Your task to perform on an android device: turn notification dots on Image 0: 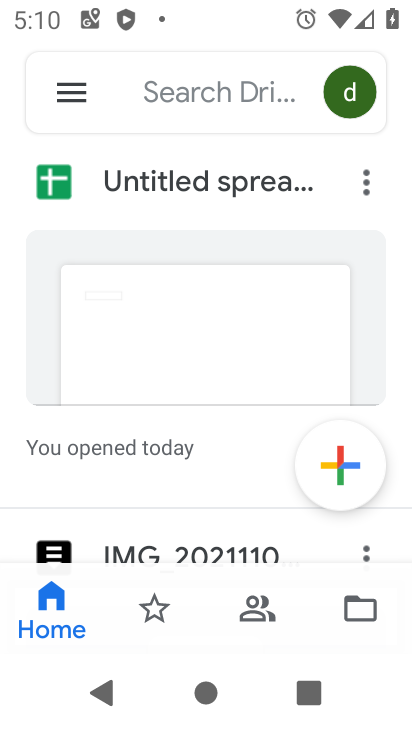
Step 0: press home button
Your task to perform on an android device: turn notification dots on Image 1: 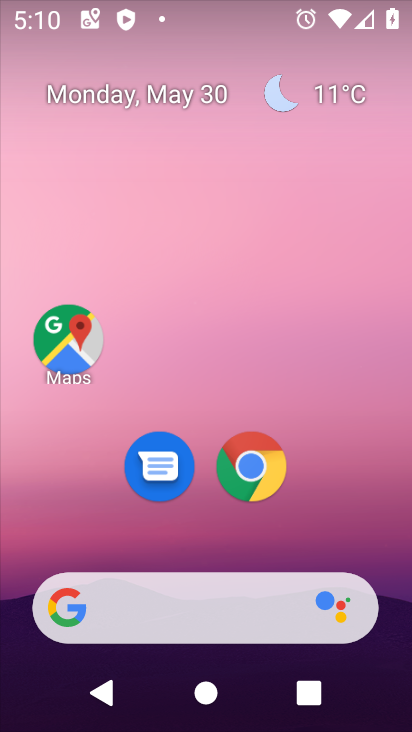
Step 1: drag from (336, 475) to (253, 87)
Your task to perform on an android device: turn notification dots on Image 2: 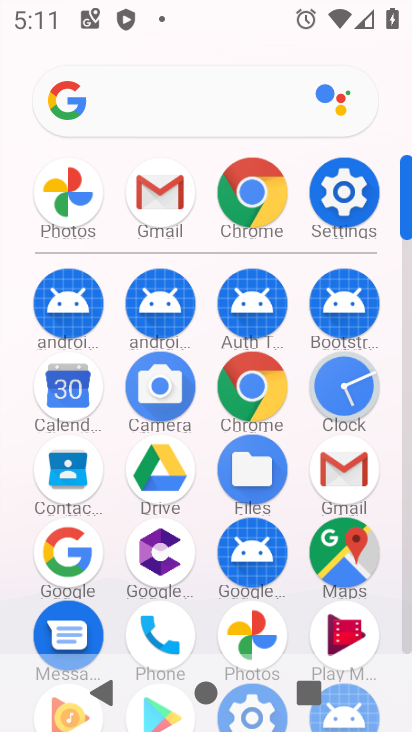
Step 2: click (345, 185)
Your task to perform on an android device: turn notification dots on Image 3: 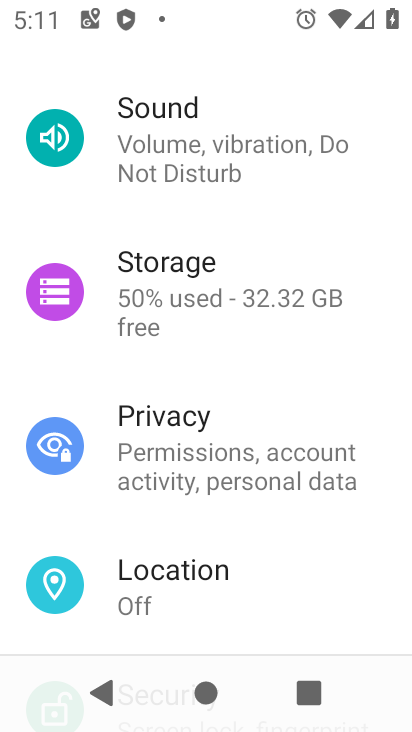
Step 3: drag from (265, 166) to (262, 644)
Your task to perform on an android device: turn notification dots on Image 4: 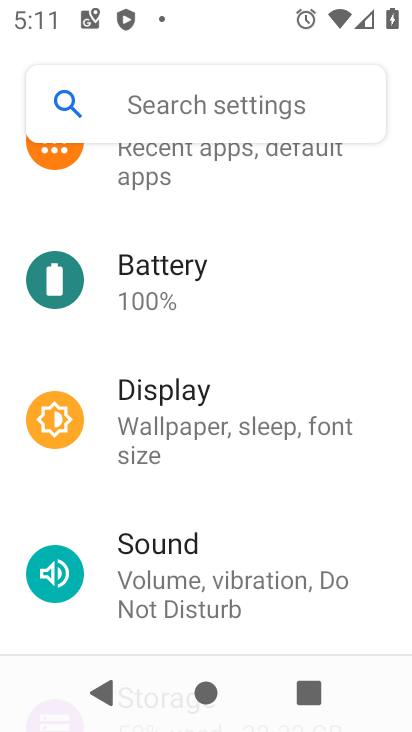
Step 4: drag from (230, 252) to (253, 670)
Your task to perform on an android device: turn notification dots on Image 5: 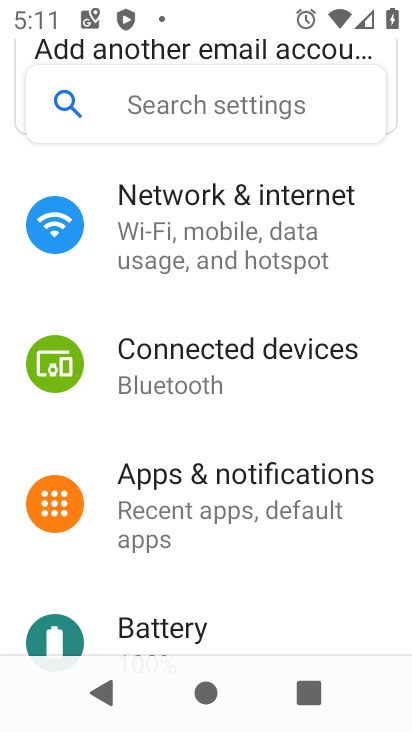
Step 5: drag from (220, 196) to (256, 576)
Your task to perform on an android device: turn notification dots on Image 6: 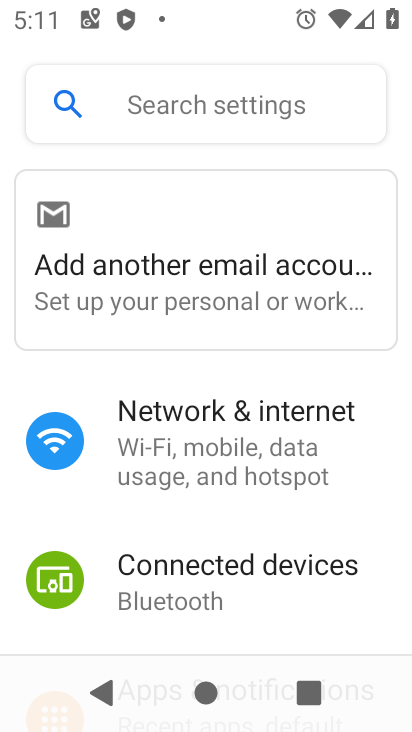
Step 6: drag from (232, 515) to (274, 73)
Your task to perform on an android device: turn notification dots on Image 7: 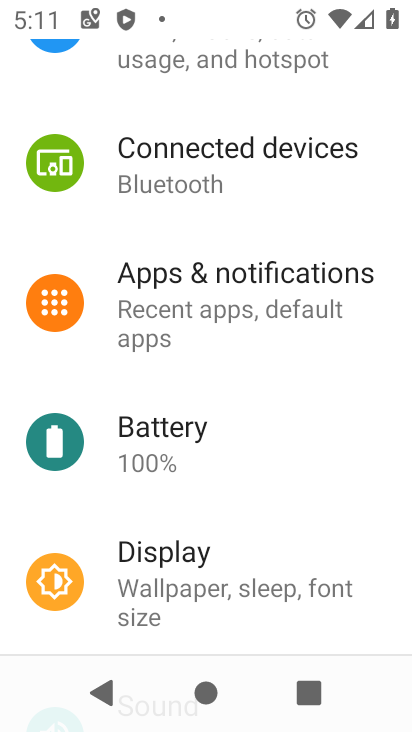
Step 7: click (227, 308)
Your task to perform on an android device: turn notification dots on Image 8: 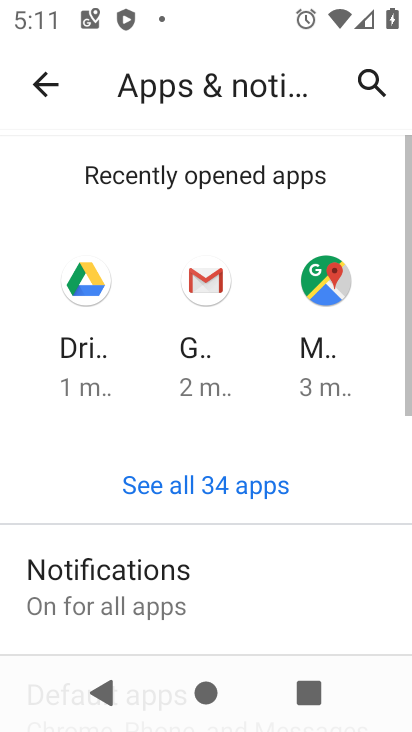
Step 8: drag from (242, 531) to (223, 125)
Your task to perform on an android device: turn notification dots on Image 9: 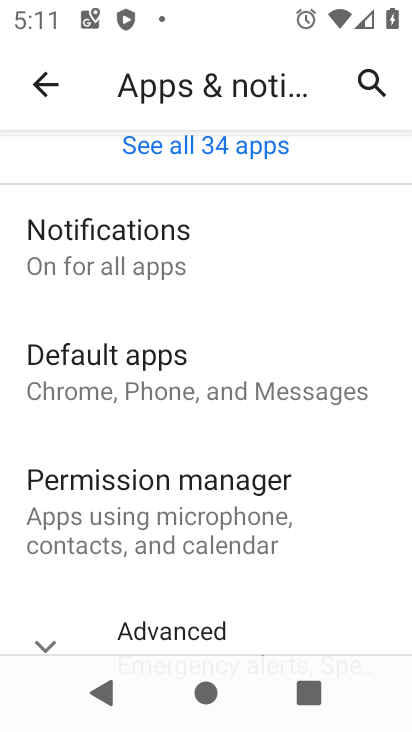
Step 9: click (163, 243)
Your task to perform on an android device: turn notification dots on Image 10: 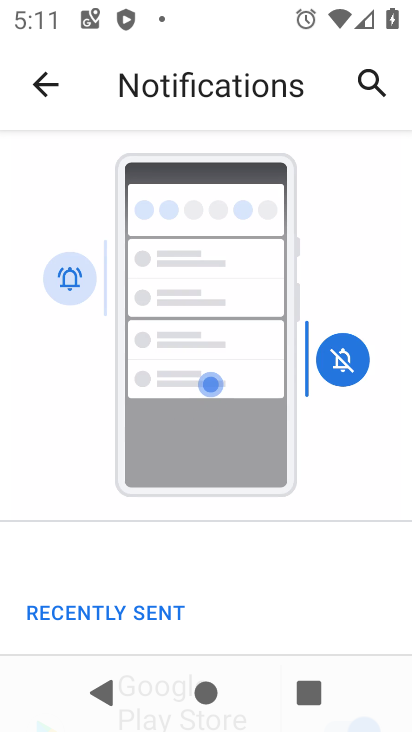
Step 10: drag from (232, 572) to (200, 92)
Your task to perform on an android device: turn notification dots on Image 11: 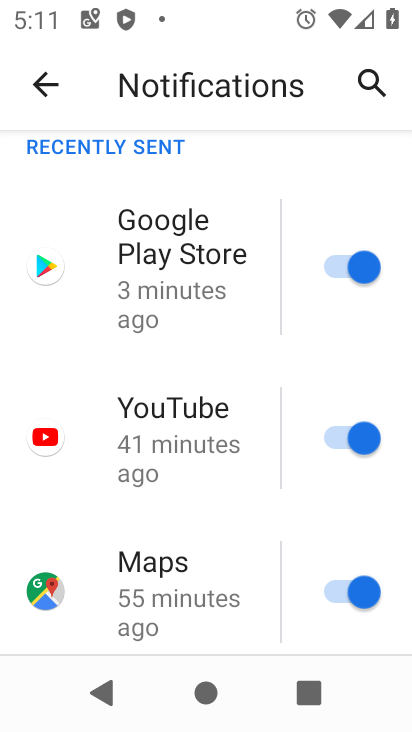
Step 11: drag from (185, 529) to (199, 115)
Your task to perform on an android device: turn notification dots on Image 12: 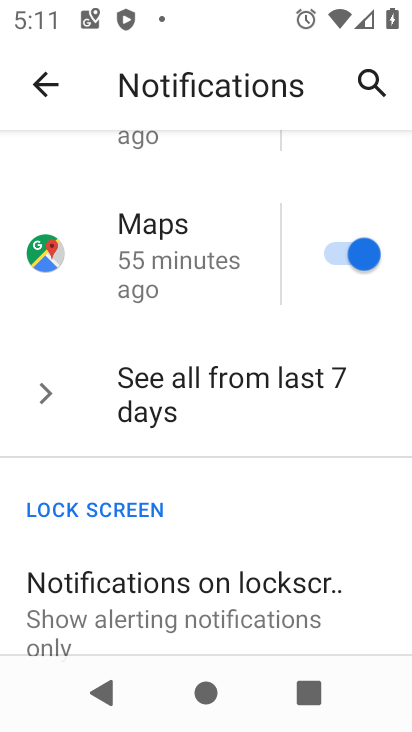
Step 12: drag from (193, 516) to (195, 178)
Your task to perform on an android device: turn notification dots on Image 13: 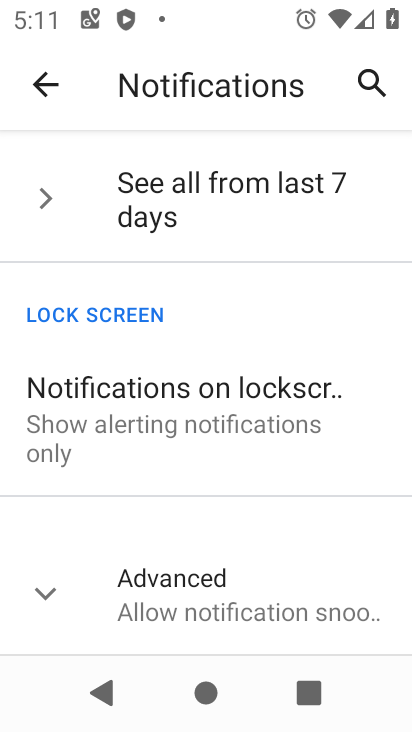
Step 13: click (187, 591)
Your task to perform on an android device: turn notification dots on Image 14: 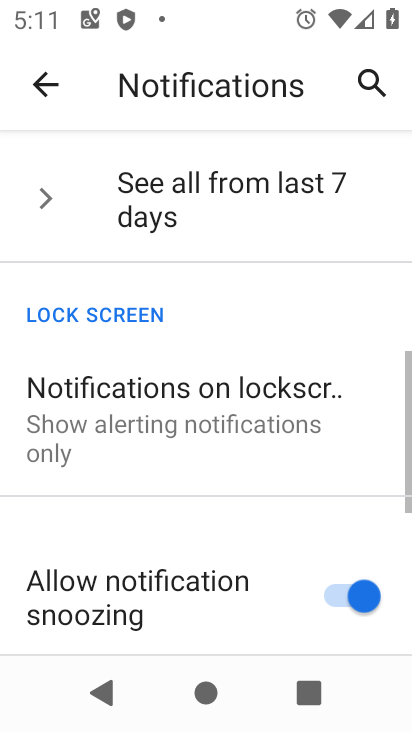
Step 14: drag from (254, 583) to (209, 148)
Your task to perform on an android device: turn notification dots on Image 15: 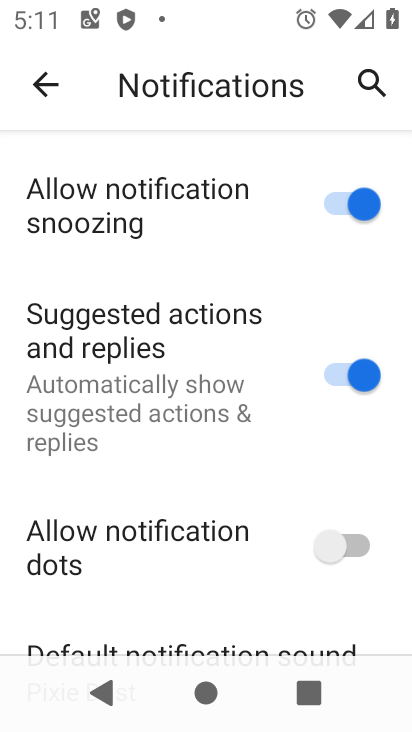
Step 15: drag from (178, 530) to (201, 208)
Your task to perform on an android device: turn notification dots on Image 16: 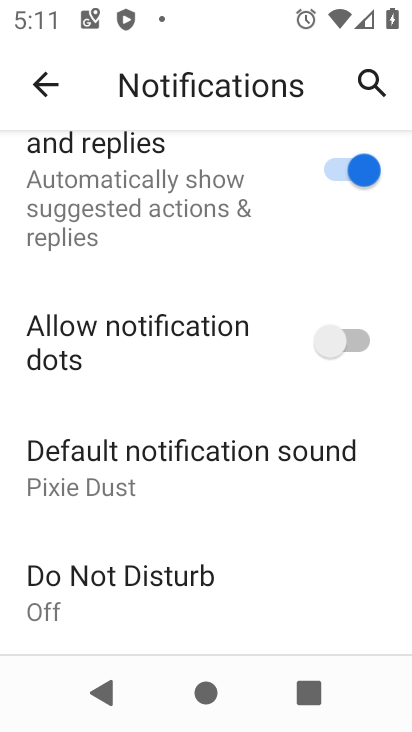
Step 16: click (348, 325)
Your task to perform on an android device: turn notification dots on Image 17: 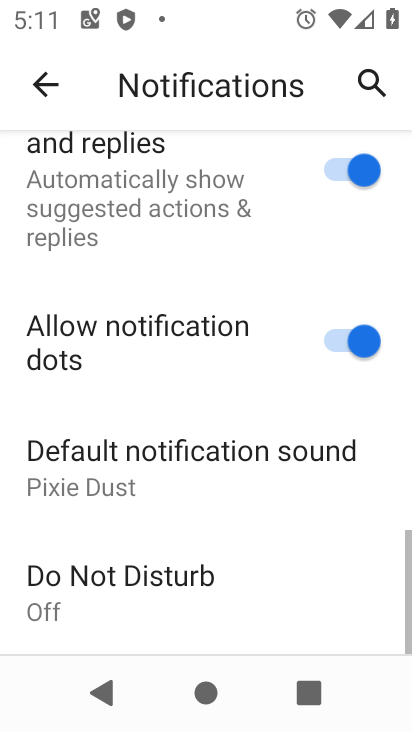
Step 17: task complete